Your task to perform on an android device: Go to notification settings Image 0: 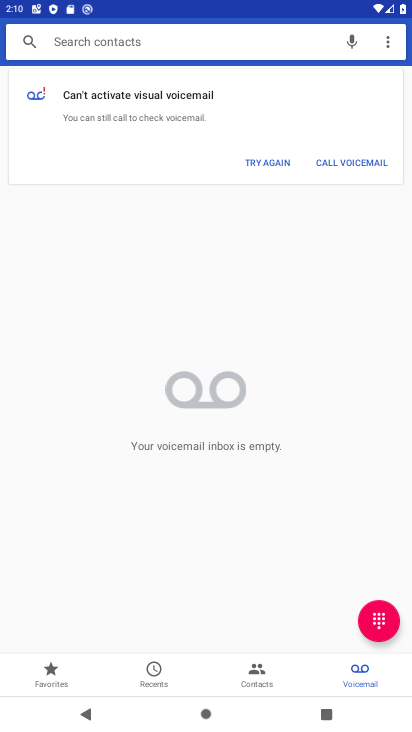
Step 0: press home button
Your task to perform on an android device: Go to notification settings Image 1: 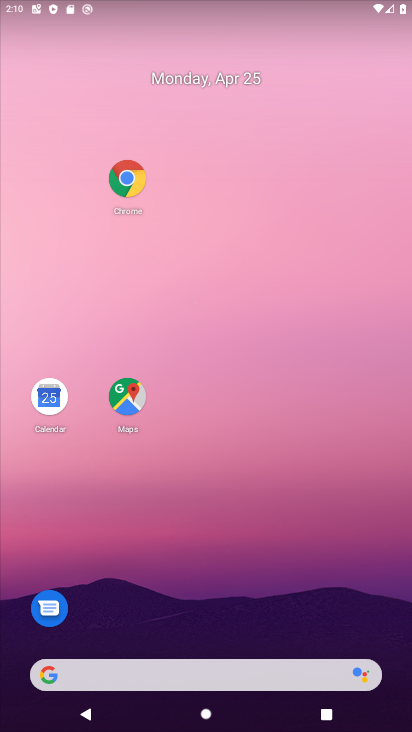
Step 1: drag from (222, 645) to (354, 120)
Your task to perform on an android device: Go to notification settings Image 2: 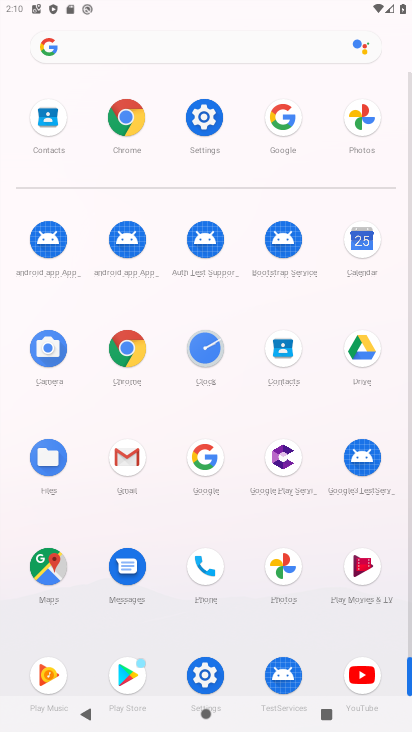
Step 2: click (194, 670)
Your task to perform on an android device: Go to notification settings Image 3: 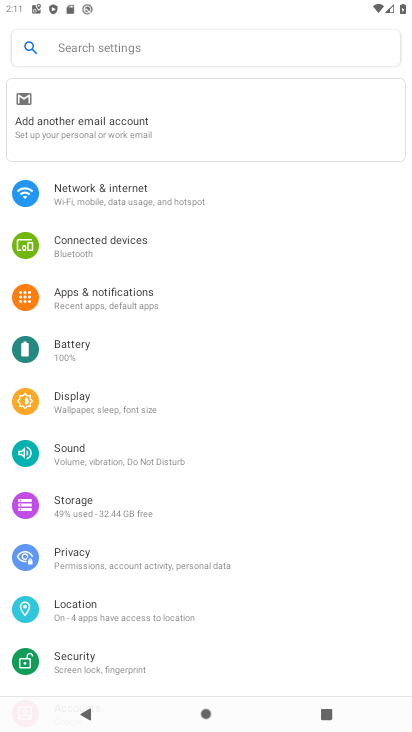
Step 3: click (149, 304)
Your task to perform on an android device: Go to notification settings Image 4: 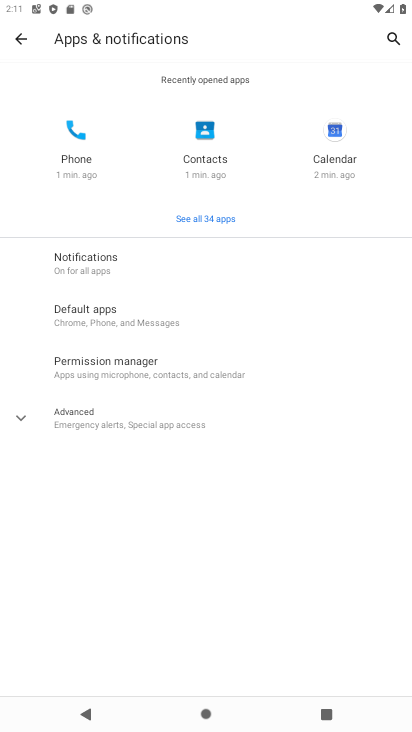
Step 4: task complete